Your task to perform on an android device: turn on location history Image 0: 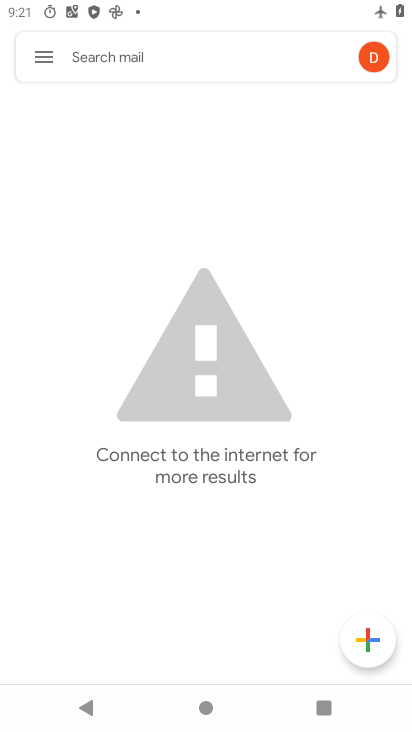
Step 0: press home button
Your task to perform on an android device: turn on location history Image 1: 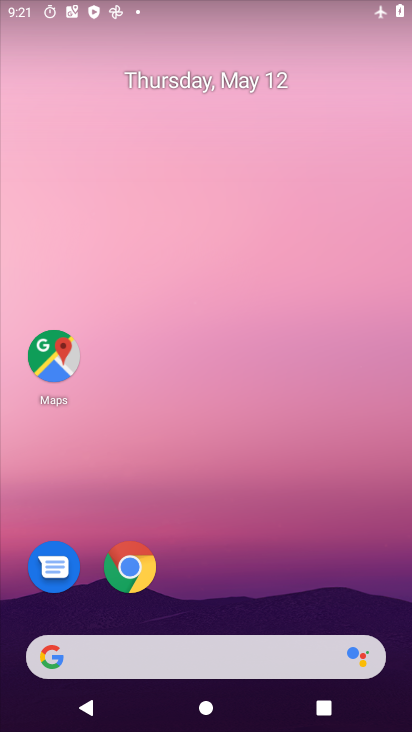
Step 1: drag from (238, 673) to (290, 229)
Your task to perform on an android device: turn on location history Image 2: 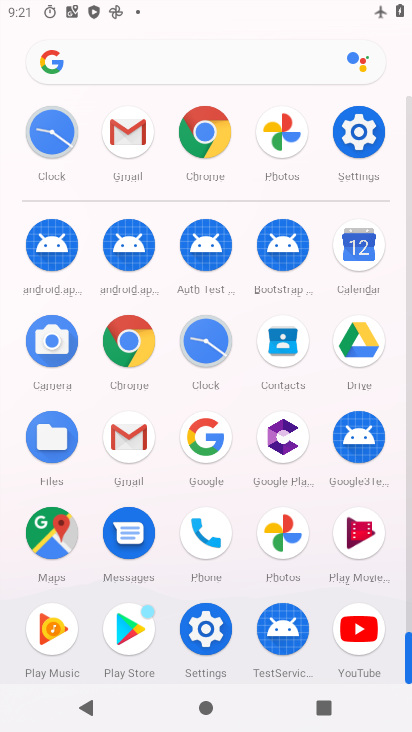
Step 2: click (207, 645)
Your task to perform on an android device: turn on location history Image 3: 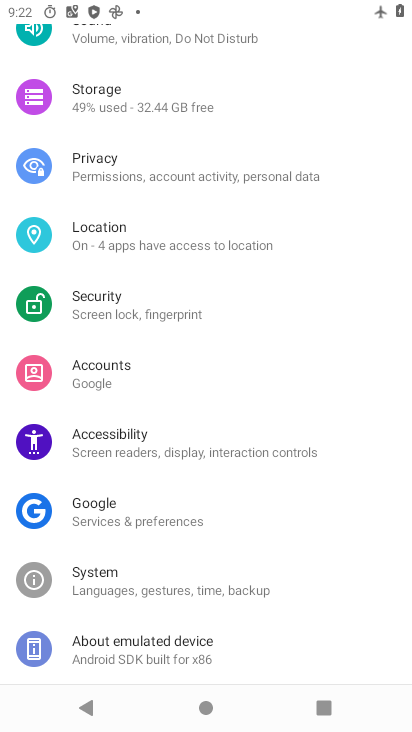
Step 3: click (187, 251)
Your task to perform on an android device: turn on location history Image 4: 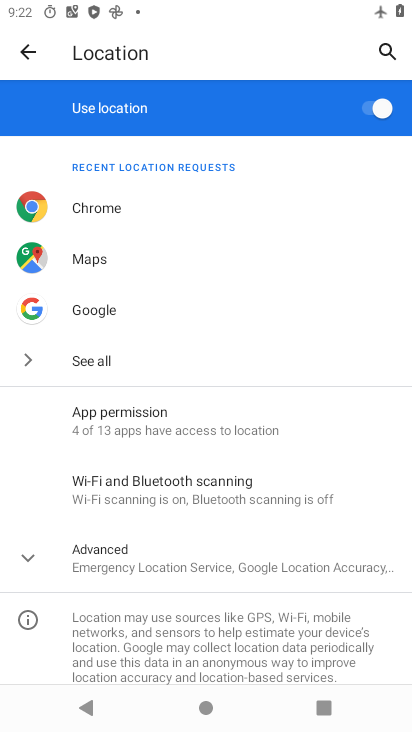
Step 4: click (187, 556)
Your task to perform on an android device: turn on location history Image 5: 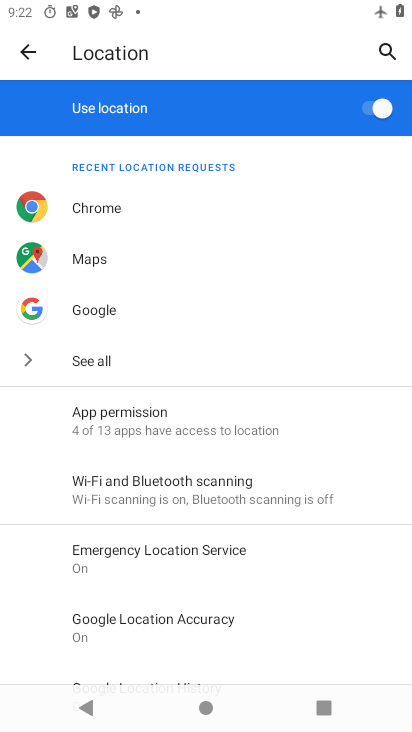
Step 5: drag from (244, 619) to (262, 419)
Your task to perform on an android device: turn on location history Image 6: 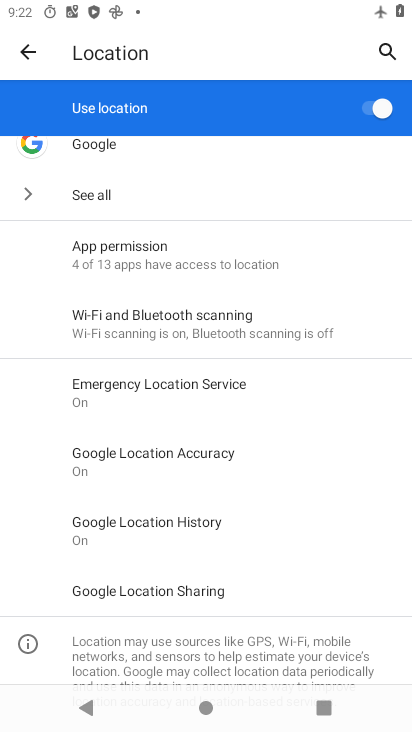
Step 6: click (226, 528)
Your task to perform on an android device: turn on location history Image 7: 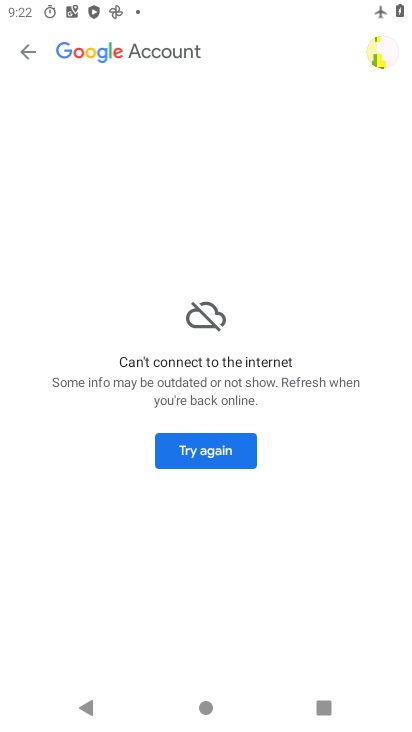
Step 7: task complete